Your task to perform on an android device: Open calendar and show me the fourth week of next month Image 0: 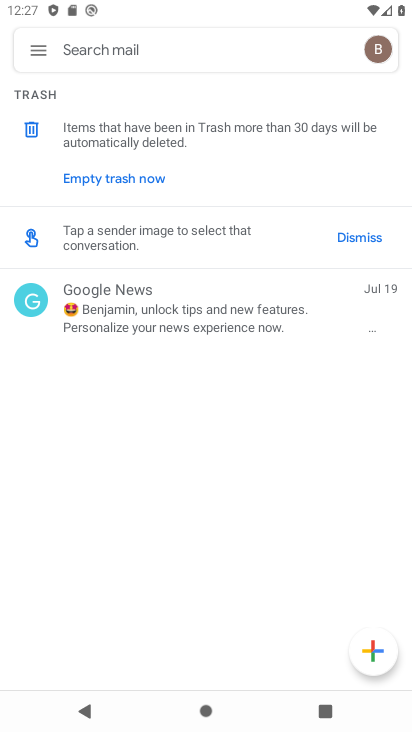
Step 0: press home button
Your task to perform on an android device: Open calendar and show me the fourth week of next month Image 1: 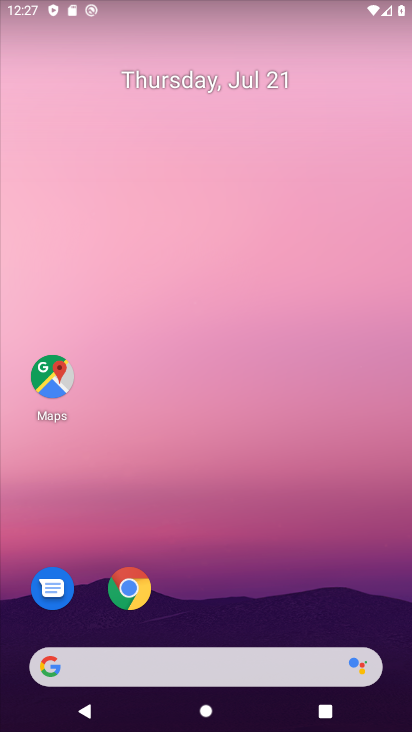
Step 1: drag from (287, 500) to (346, 204)
Your task to perform on an android device: Open calendar and show me the fourth week of next month Image 2: 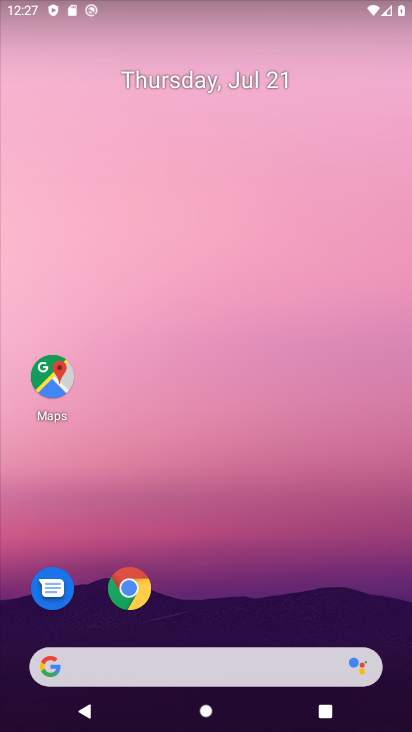
Step 2: drag from (351, 563) to (411, 299)
Your task to perform on an android device: Open calendar and show me the fourth week of next month Image 3: 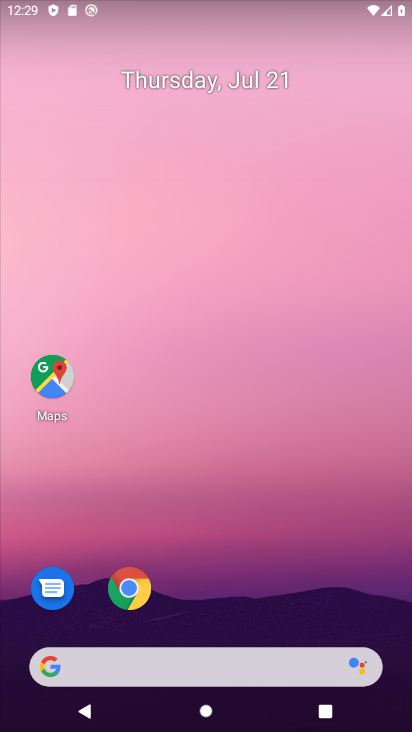
Step 3: drag from (247, 593) to (407, 128)
Your task to perform on an android device: Open calendar and show me the fourth week of next month Image 4: 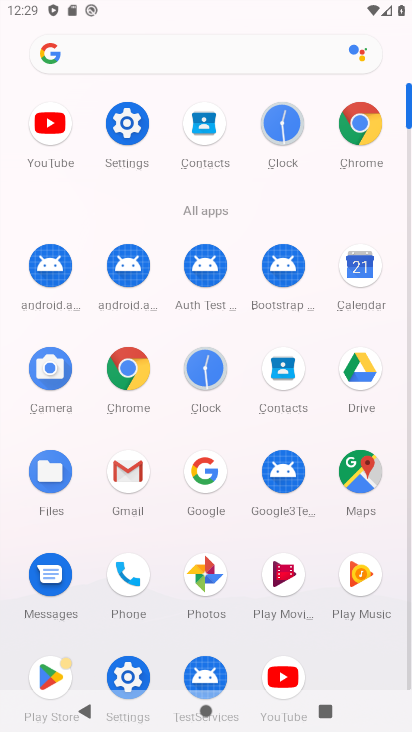
Step 4: click (350, 272)
Your task to perform on an android device: Open calendar and show me the fourth week of next month Image 5: 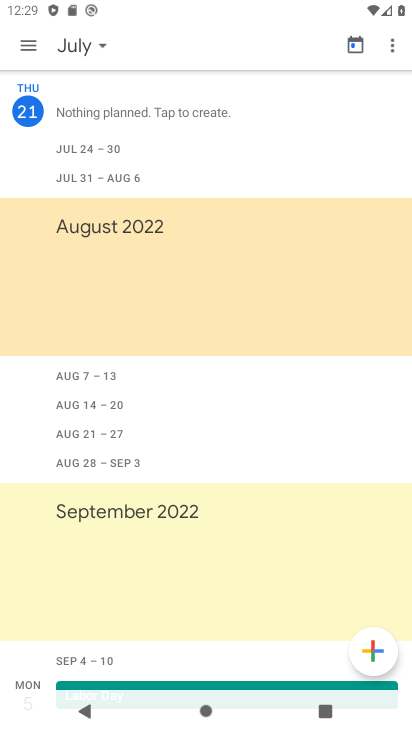
Step 5: task complete